Your task to perform on an android device: Go to Maps Image 0: 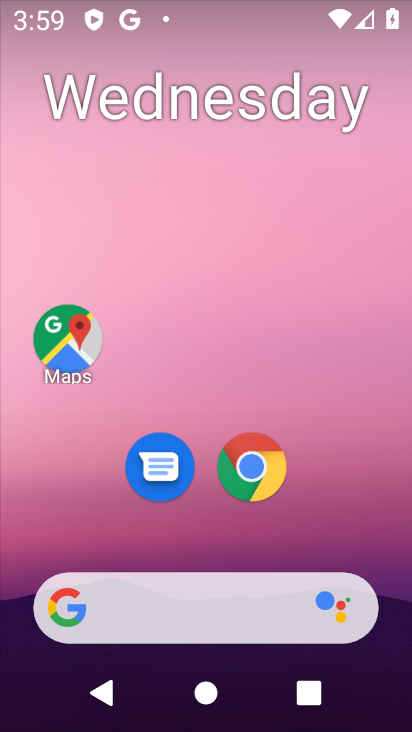
Step 0: drag from (228, 543) to (227, 212)
Your task to perform on an android device: Go to Maps Image 1: 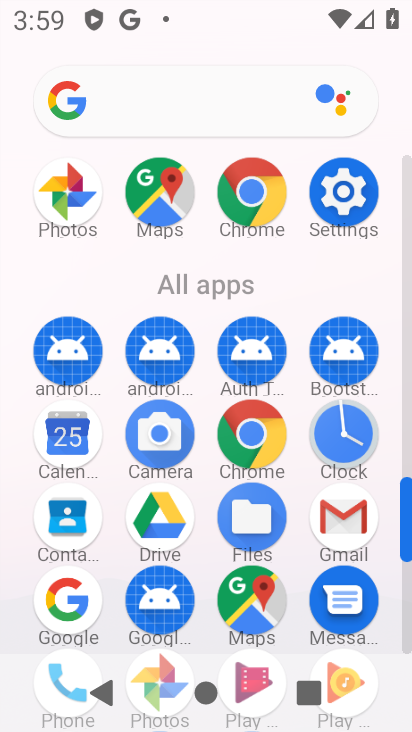
Step 1: drag from (194, 590) to (211, 438)
Your task to perform on an android device: Go to Maps Image 2: 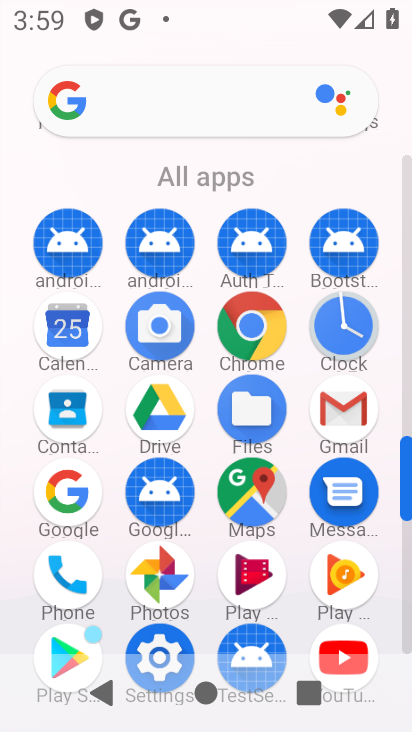
Step 2: click (245, 489)
Your task to perform on an android device: Go to Maps Image 3: 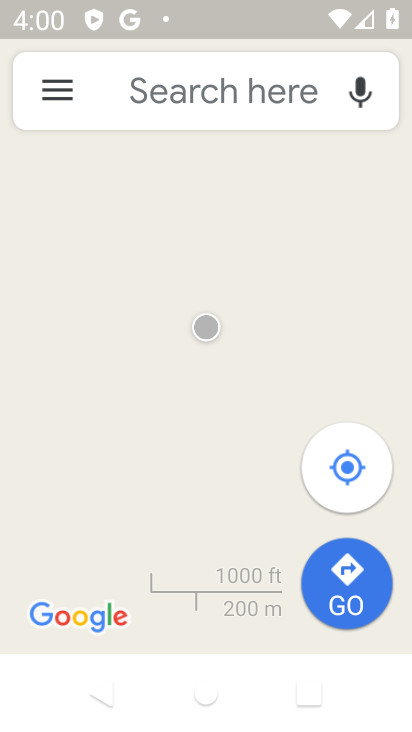
Step 3: task complete